Your task to perform on an android device: Open Chrome and go to the settings page Image 0: 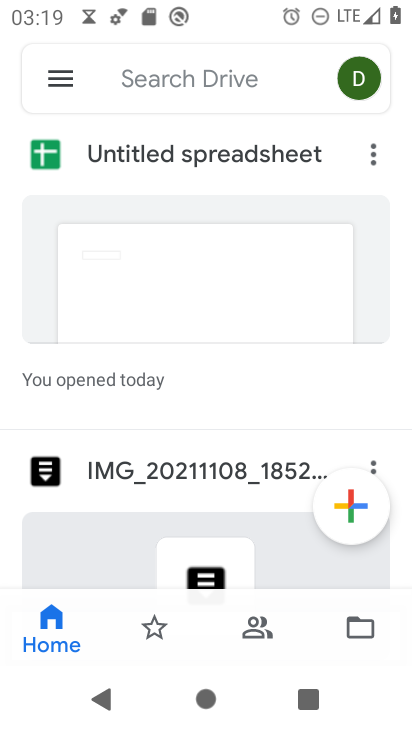
Step 0: press back button
Your task to perform on an android device: Open Chrome and go to the settings page Image 1: 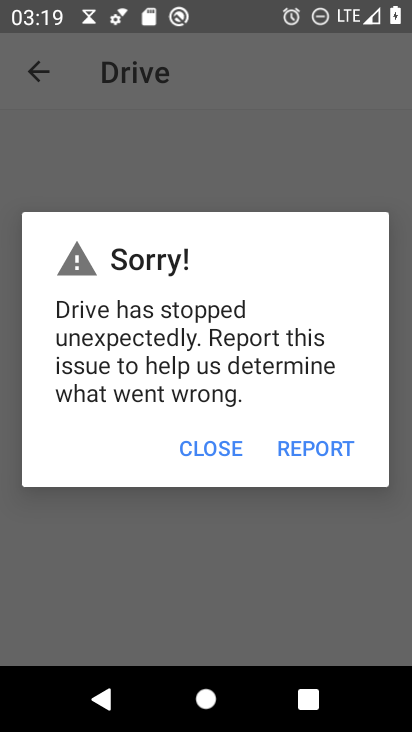
Step 1: press home button
Your task to perform on an android device: Open Chrome and go to the settings page Image 2: 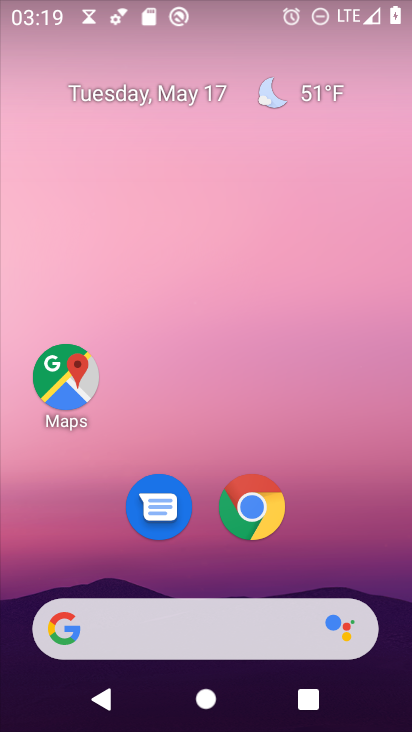
Step 2: click (237, 512)
Your task to perform on an android device: Open Chrome and go to the settings page Image 3: 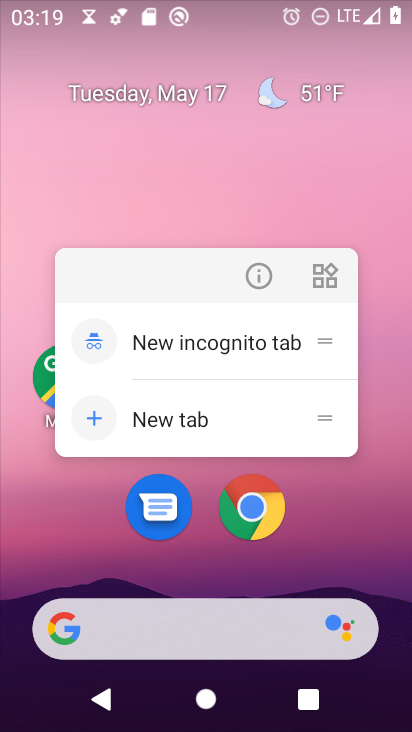
Step 3: click (256, 513)
Your task to perform on an android device: Open Chrome and go to the settings page Image 4: 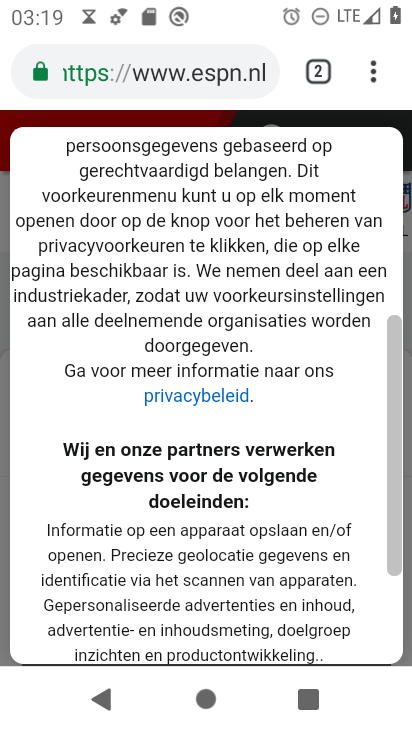
Step 4: click (363, 72)
Your task to perform on an android device: Open Chrome and go to the settings page Image 5: 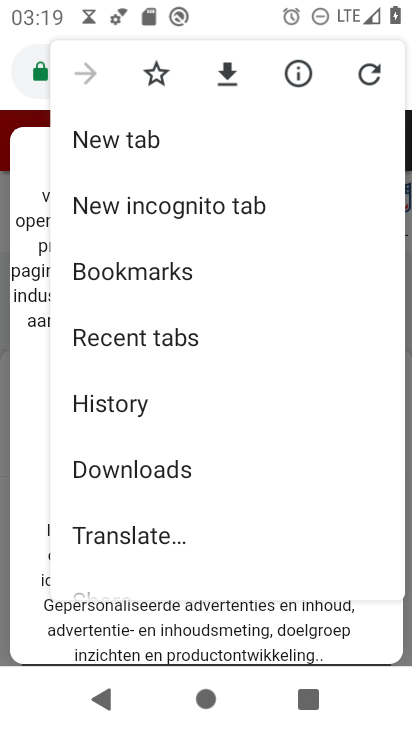
Step 5: drag from (212, 502) to (194, 201)
Your task to perform on an android device: Open Chrome and go to the settings page Image 6: 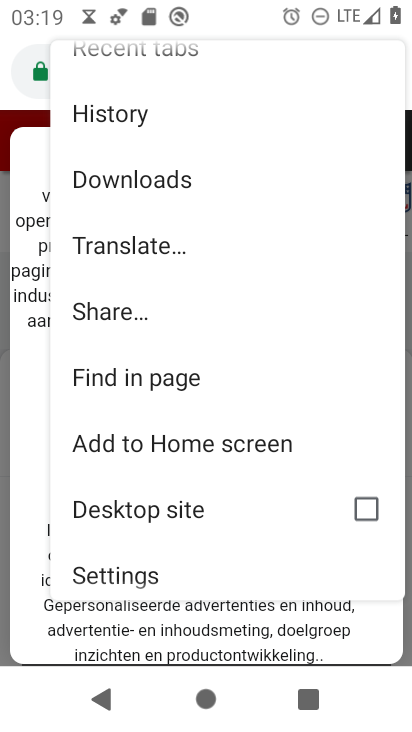
Step 6: click (175, 565)
Your task to perform on an android device: Open Chrome and go to the settings page Image 7: 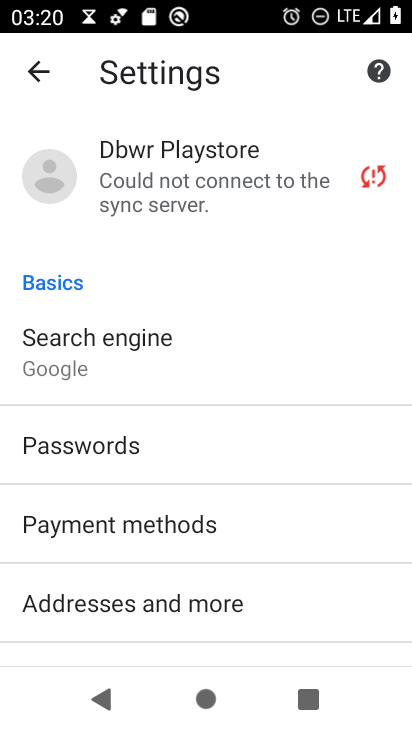
Step 7: task complete